Your task to perform on an android device: see creations saved in the google photos Image 0: 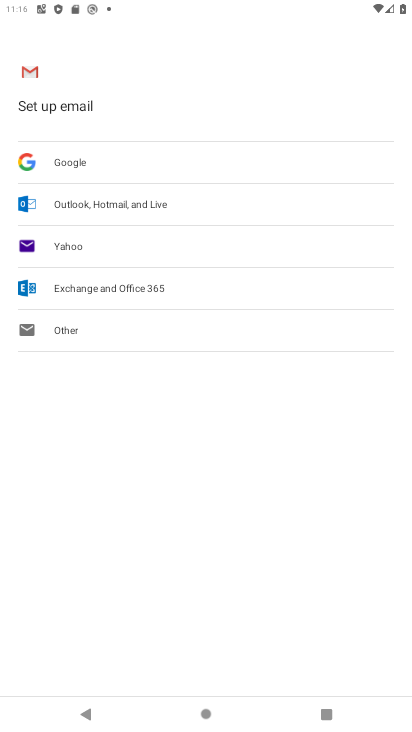
Step 0: press home button
Your task to perform on an android device: see creations saved in the google photos Image 1: 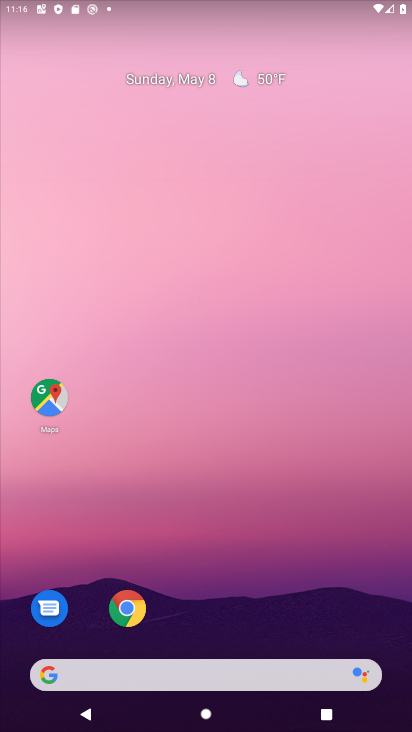
Step 1: drag from (269, 599) to (244, 134)
Your task to perform on an android device: see creations saved in the google photos Image 2: 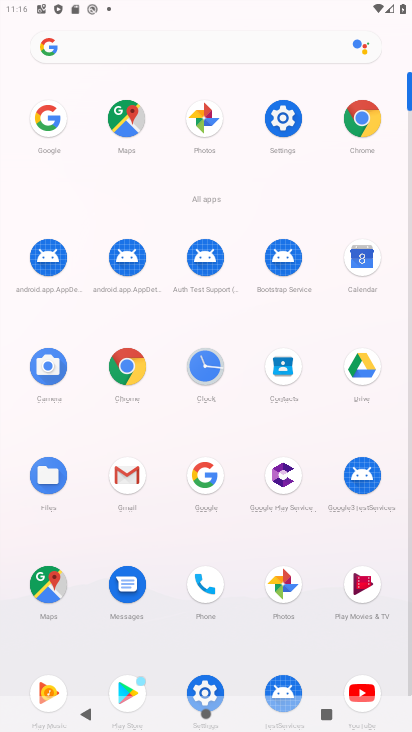
Step 2: click (216, 121)
Your task to perform on an android device: see creations saved in the google photos Image 3: 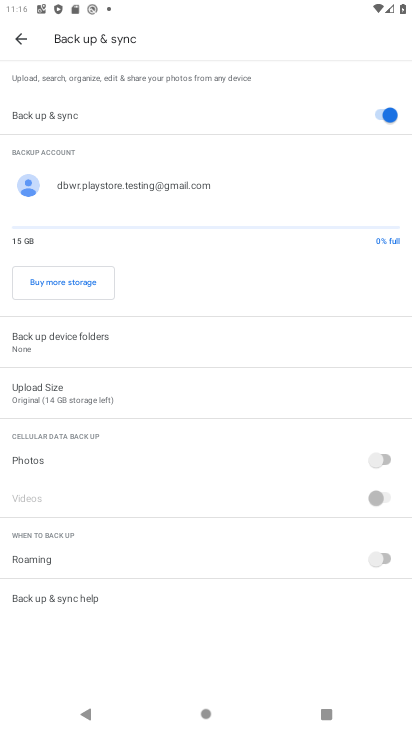
Step 3: click (14, 55)
Your task to perform on an android device: see creations saved in the google photos Image 4: 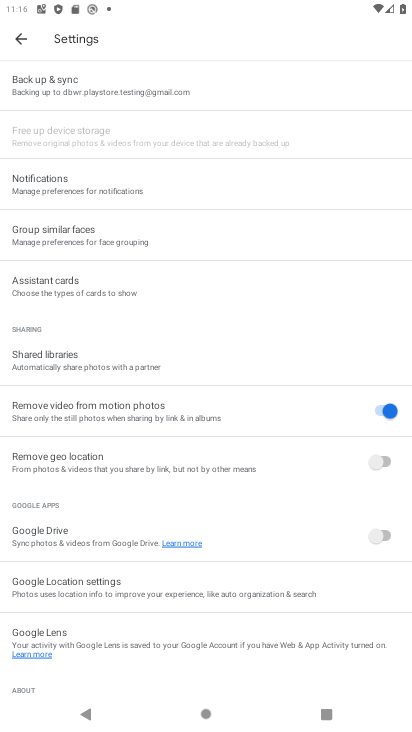
Step 4: click (21, 44)
Your task to perform on an android device: see creations saved in the google photos Image 5: 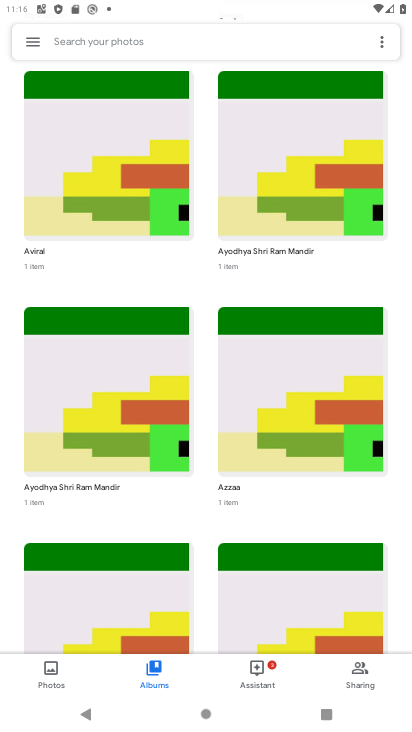
Step 5: task complete